Your task to perform on an android device: all mails in gmail Image 0: 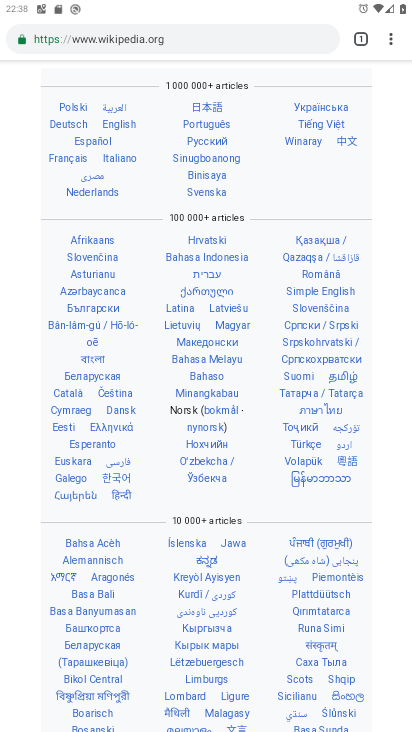
Step 0: press home button
Your task to perform on an android device: all mails in gmail Image 1: 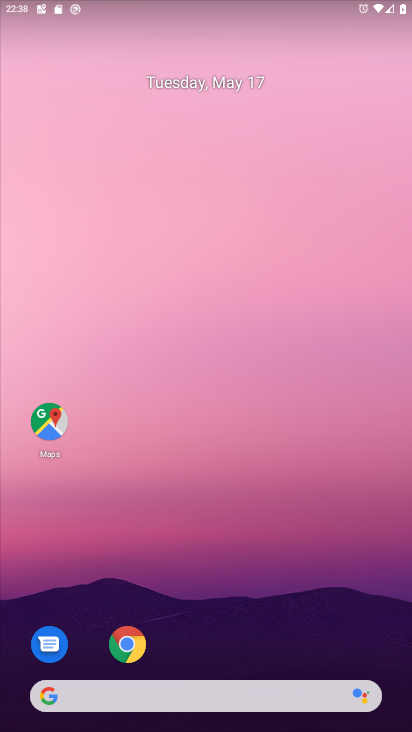
Step 1: drag from (213, 593) to (184, 100)
Your task to perform on an android device: all mails in gmail Image 2: 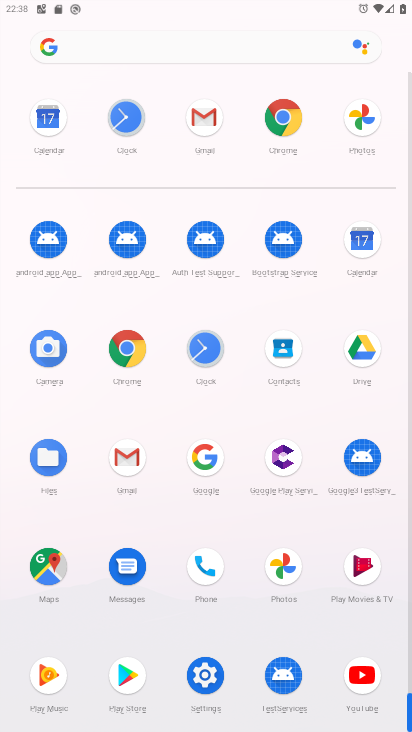
Step 2: click (132, 455)
Your task to perform on an android device: all mails in gmail Image 3: 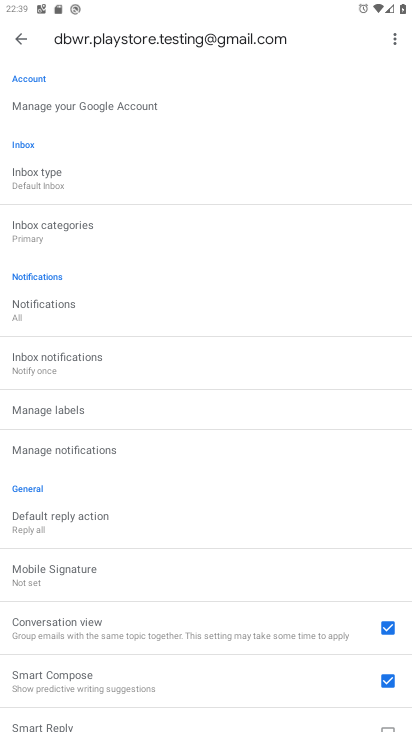
Step 3: press back button
Your task to perform on an android device: all mails in gmail Image 4: 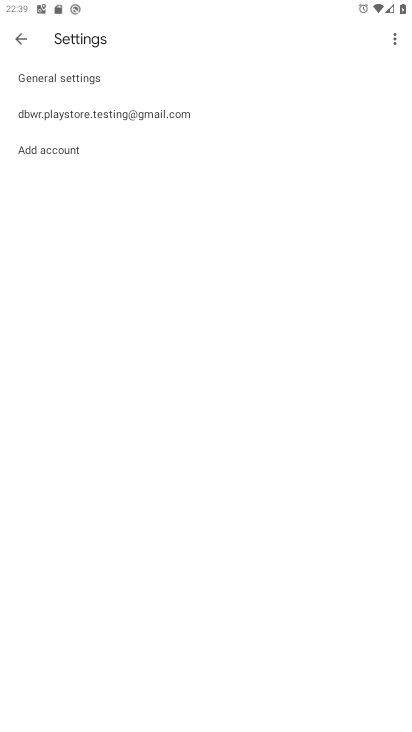
Step 4: press back button
Your task to perform on an android device: all mails in gmail Image 5: 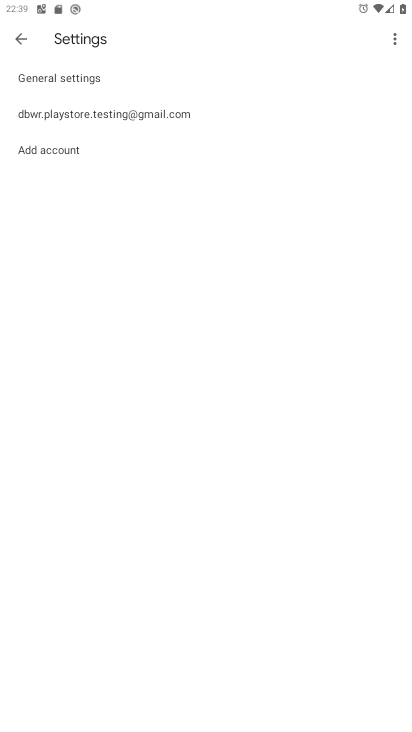
Step 5: press back button
Your task to perform on an android device: all mails in gmail Image 6: 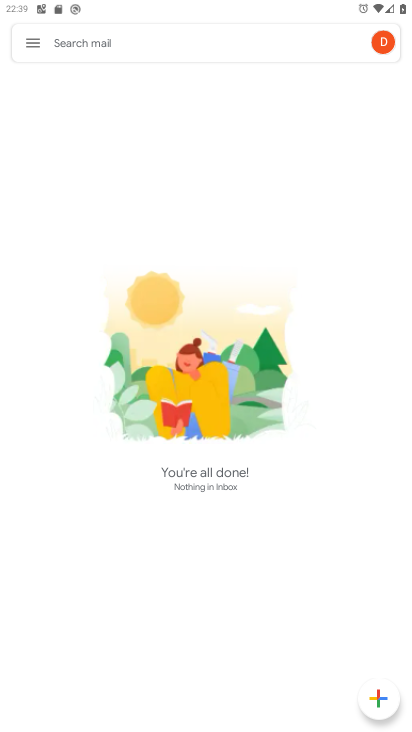
Step 6: click (33, 44)
Your task to perform on an android device: all mails in gmail Image 7: 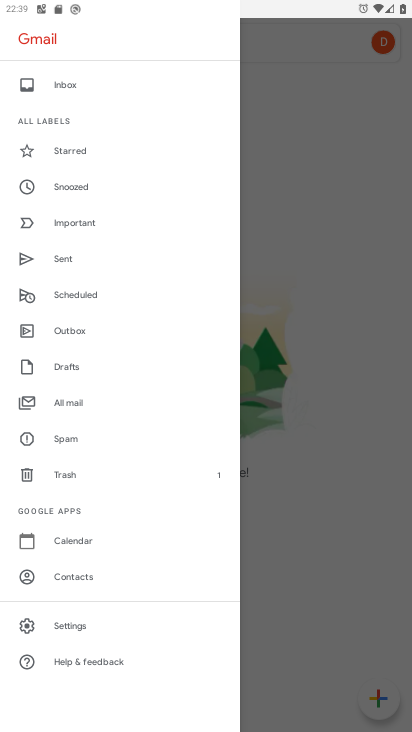
Step 7: click (84, 398)
Your task to perform on an android device: all mails in gmail Image 8: 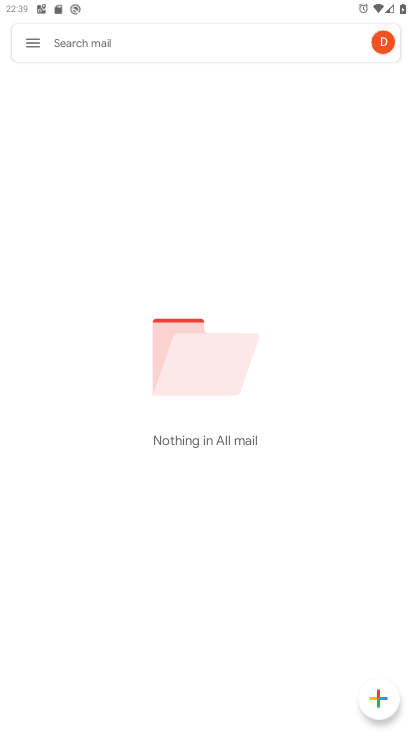
Step 8: task complete